Your task to perform on an android device: turn off smart reply in the gmail app Image 0: 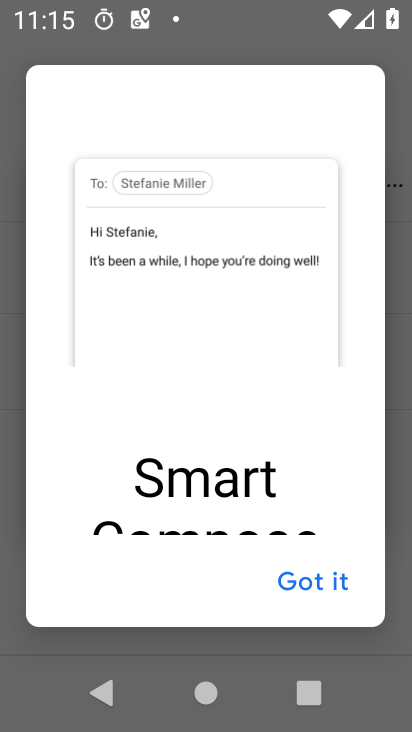
Step 0: press home button
Your task to perform on an android device: turn off smart reply in the gmail app Image 1: 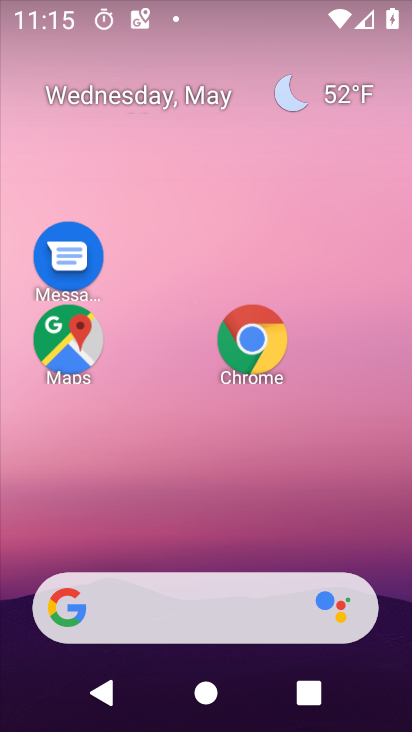
Step 1: drag from (183, 525) to (188, 103)
Your task to perform on an android device: turn off smart reply in the gmail app Image 2: 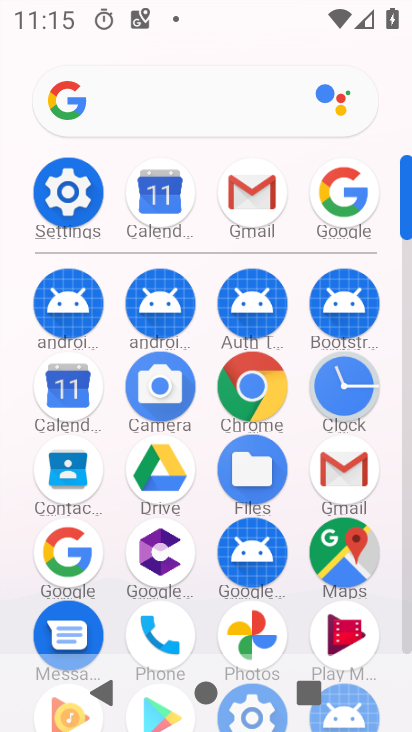
Step 2: click (246, 200)
Your task to perform on an android device: turn off smart reply in the gmail app Image 3: 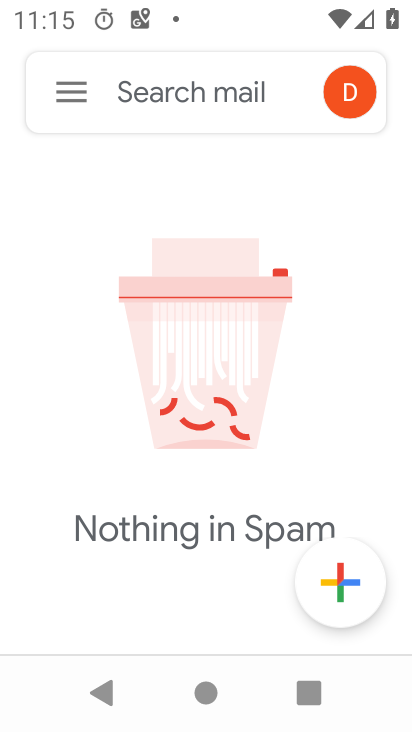
Step 3: click (59, 96)
Your task to perform on an android device: turn off smart reply in the gmail app Image 4: 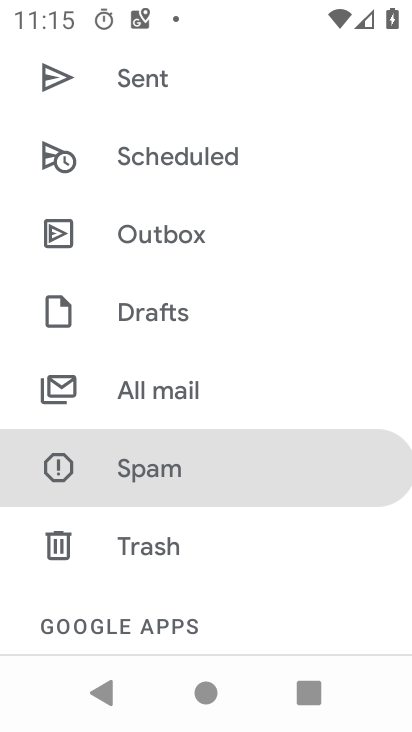
Step 4: drag from (218, 568) to (260, 106)
Your task to perform on an android device: turn off smart reply in the gmail app Image 5: 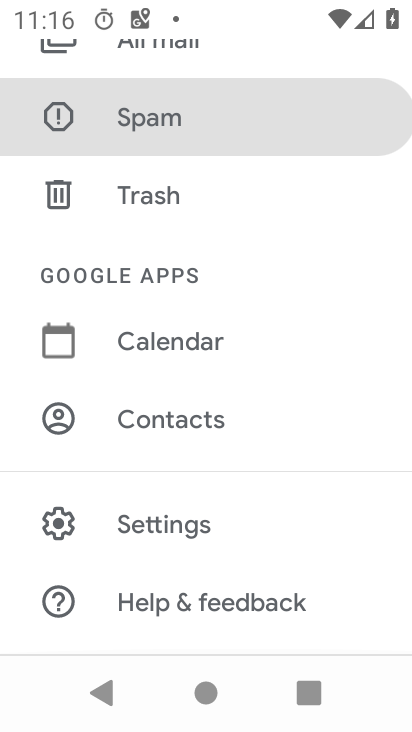
Step 5: click (154, 516)
Your task to perform on an android device: turn off smart reply in the gmail app Image 6: 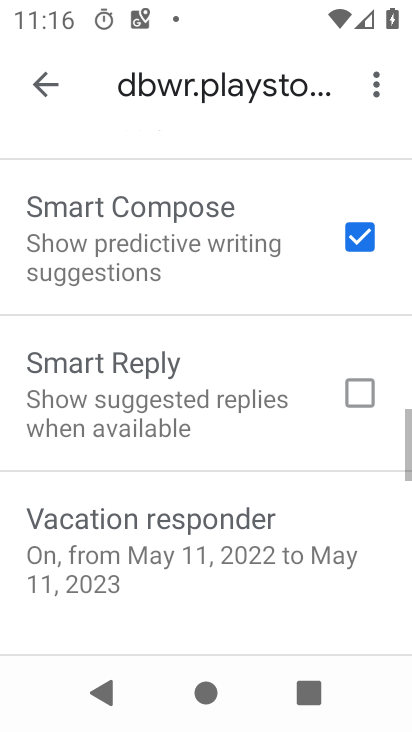
Step 6: task complete